Your task to perform on an android device: Search for a tv stand on Ikea Image 0: 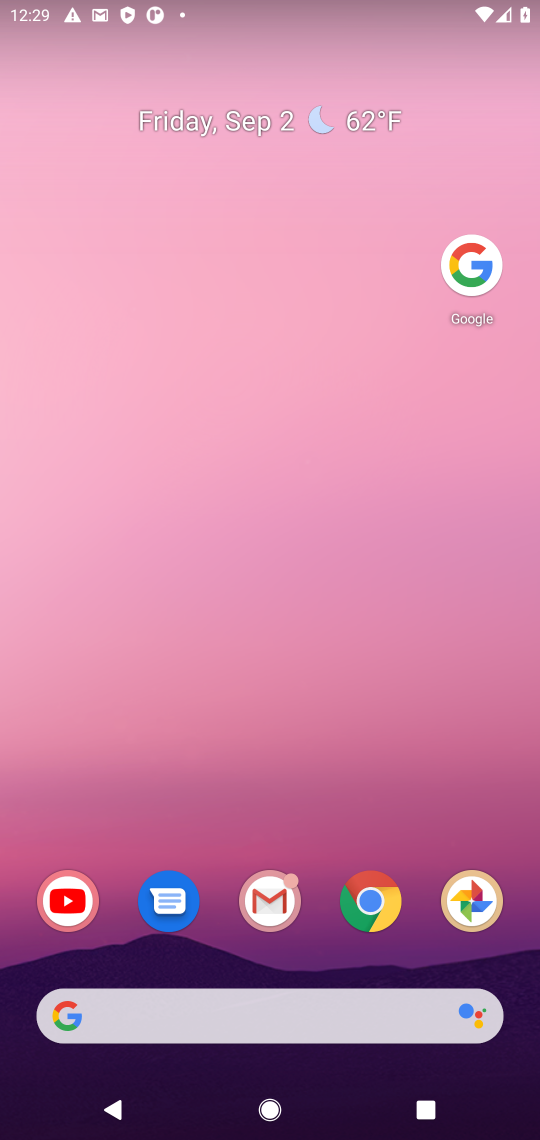
Step 0: drag from (155, 992) to (243, 197)
Your task to perform on an android device: Search for a tv stand on Ikea Image 1: 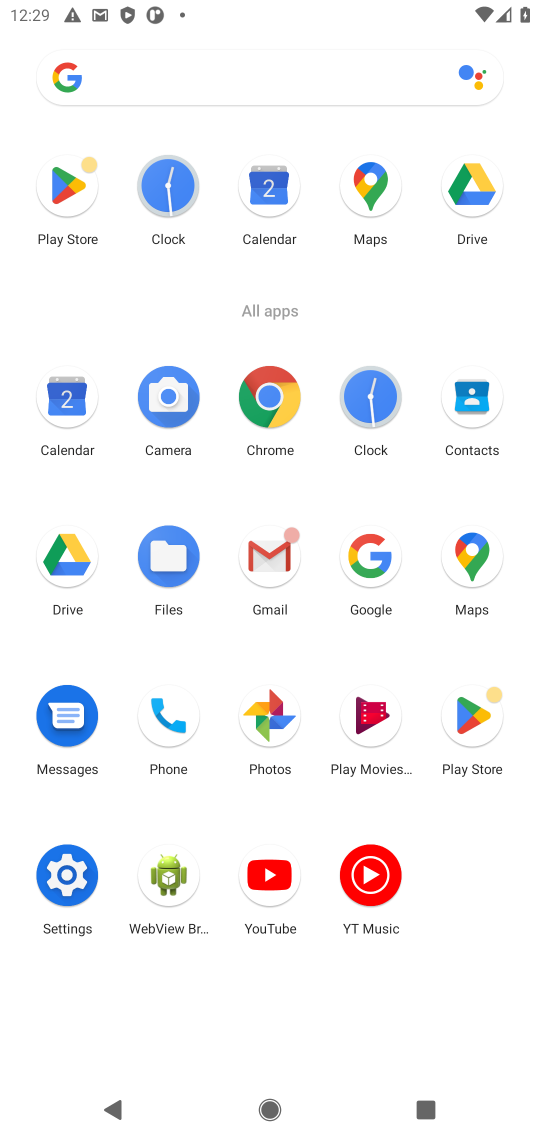
Step 1: click (364, 542)
Your task to perform on an android device: Search for a tv stand on Ikea Image 2: 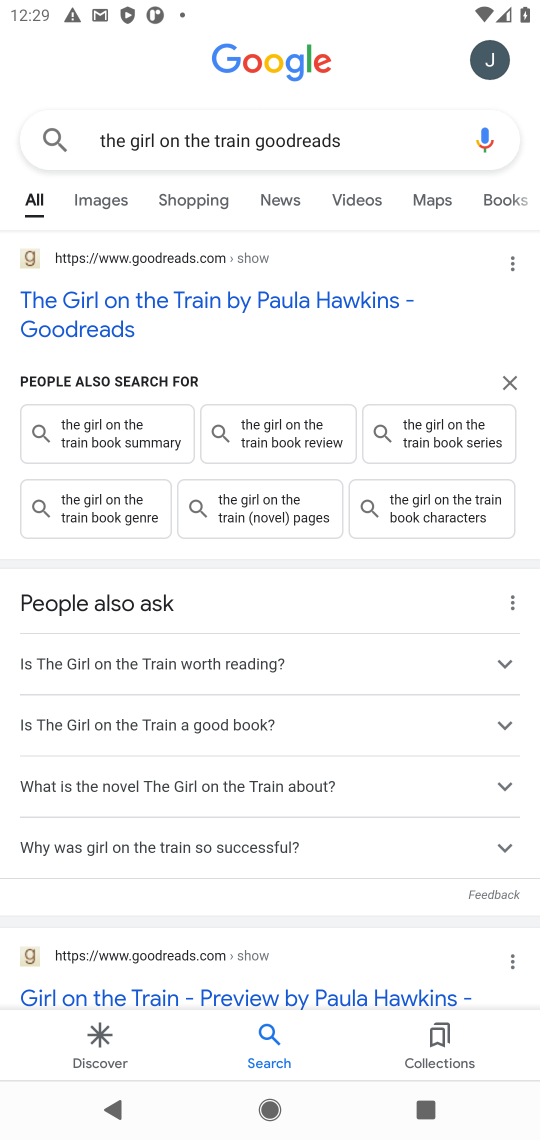
Step 2: click (350, 133)
Your task to perform on an android device: Search for a tv stand on Ikea Image 3: 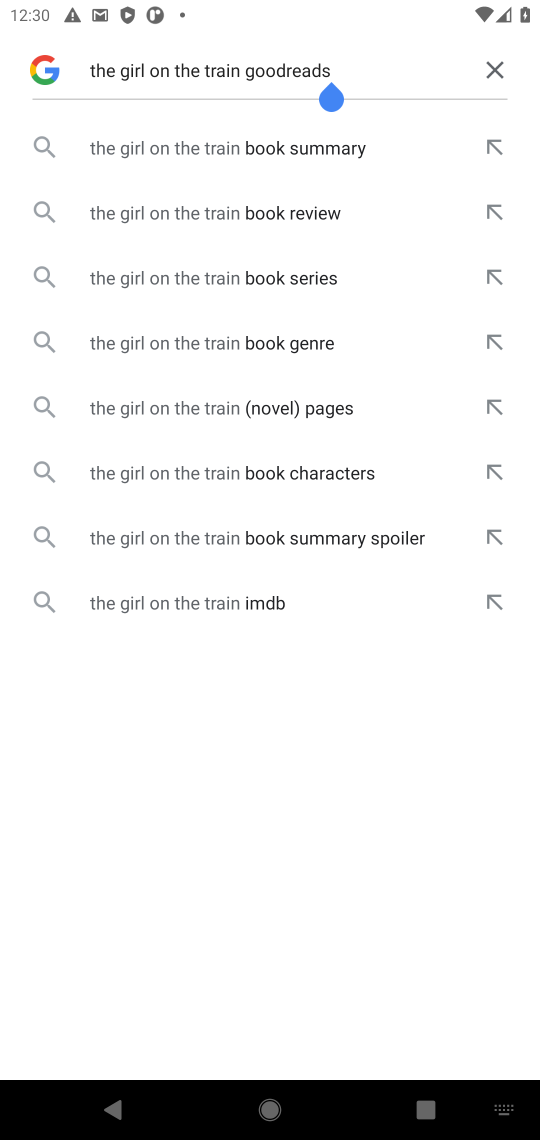
Step 3: click (496, 69)
Your task to perform on an android device: Search for a tv stand on Ikea Image 4: 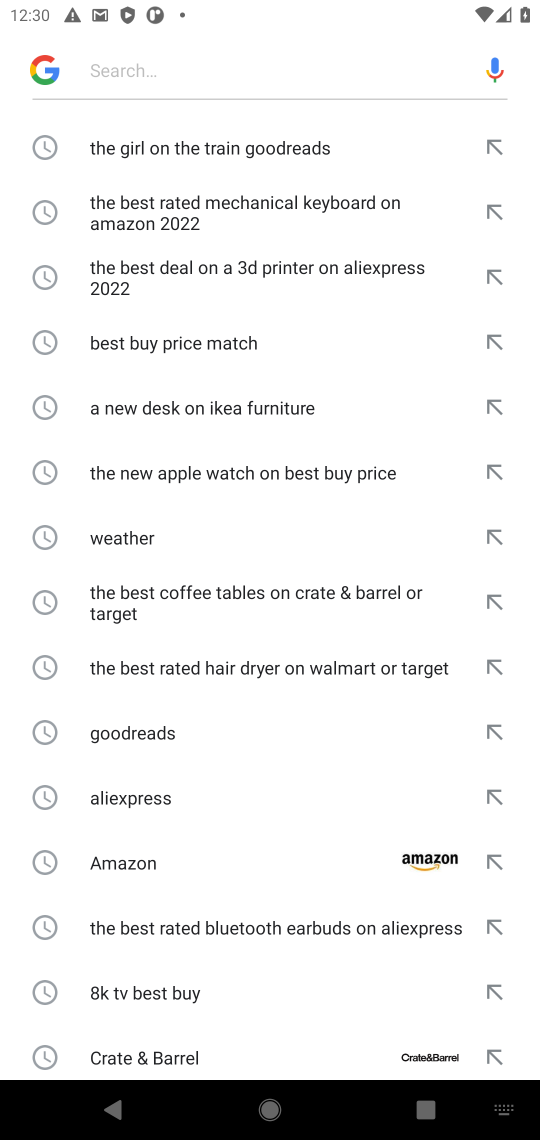
Step 4: click (249, 72)
Your task to perform on an android device: Search for a tv stand on Ikea Image 5: 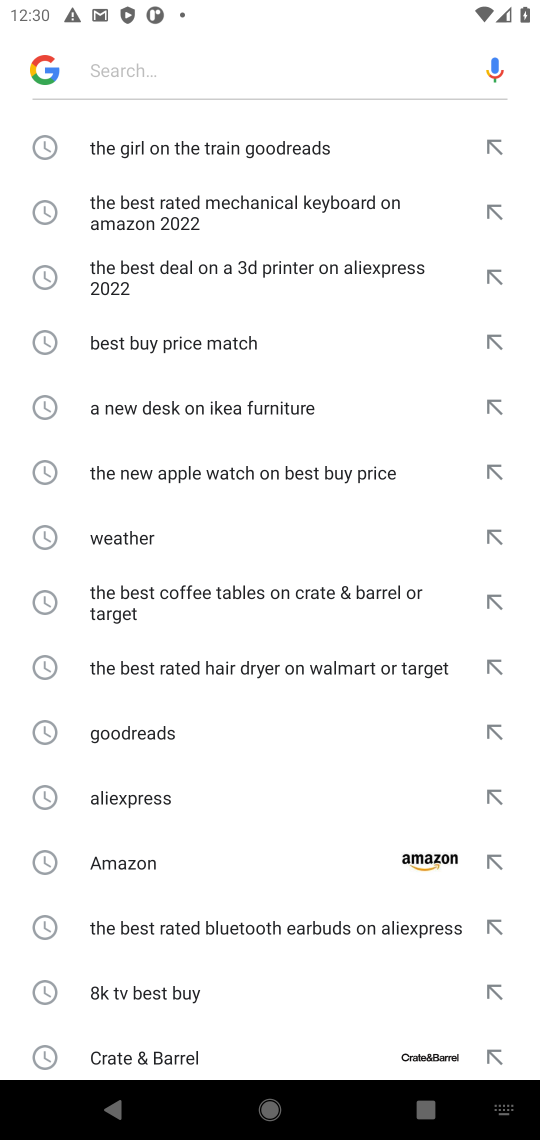
Step 5: type "tv stand on Ikea"
Your task to perform on an android device: Search for a tv stand on Ikea Image 6: 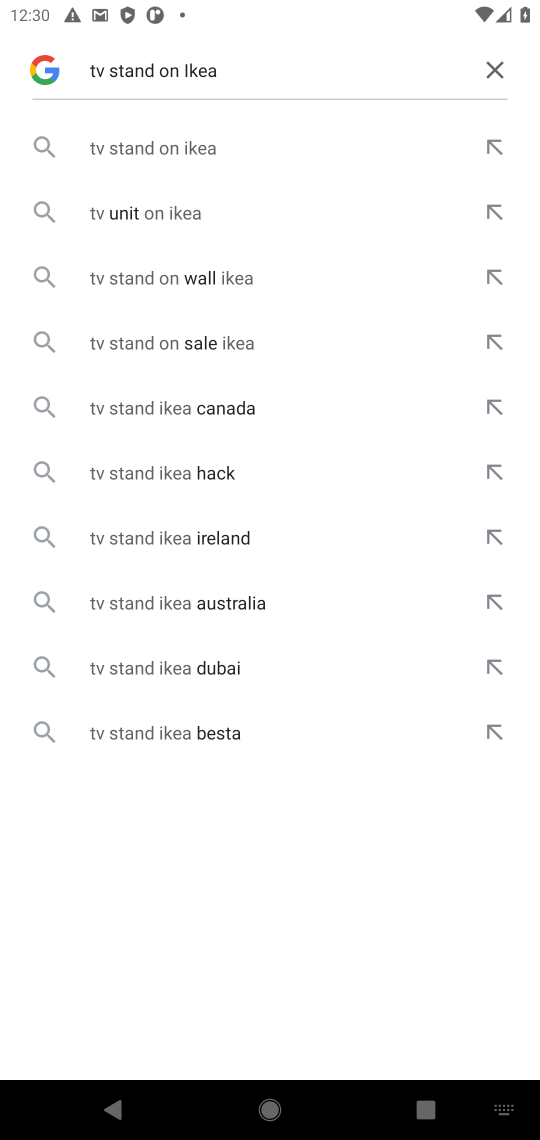
Step 6: click (159, 146)
Your task to perform on an android device: Search for a tv stand on Ikea Image 7: 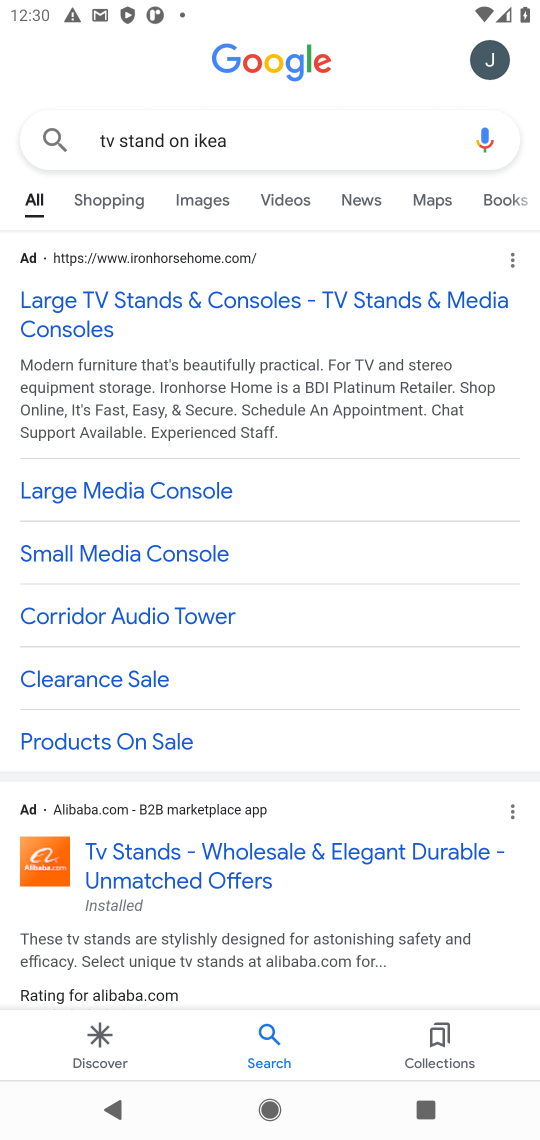
Step 7: drag from (295, 795) to (291, 329)
Your task to perform on an android device: Search for a tv stand on Ikea Image 8: 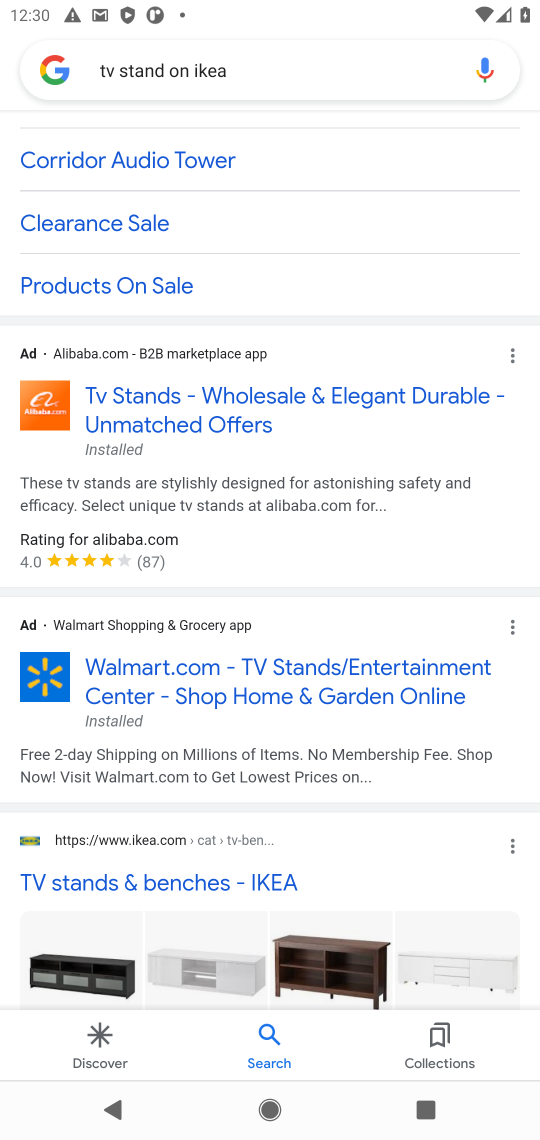
Step 8: drag from (241, 812) to (256, 499)
Your task to perform on an android device: Search for a tv stand on Ikea Image 9: 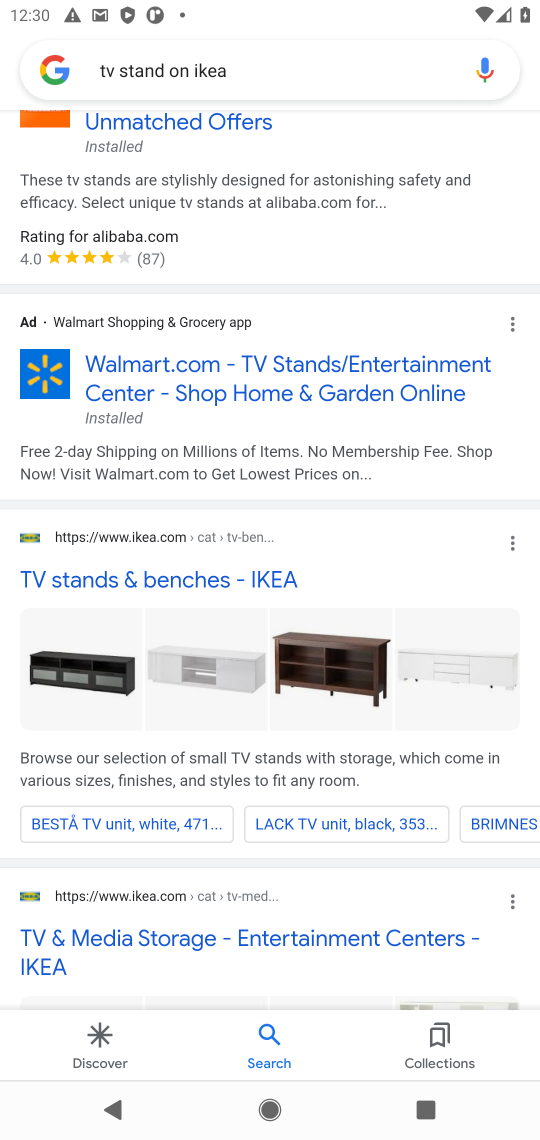
Step 9: click (178, 579)
Your task to perform on an android device: Search for a tv stand on Ikea Image 10: 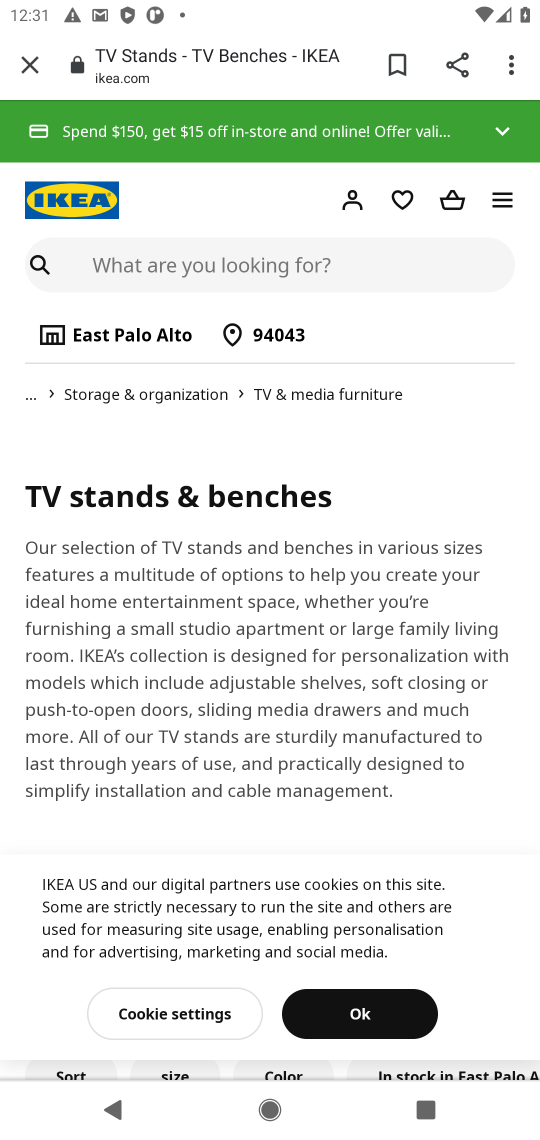
Step 10: click (258, 259)
Your task to perform on an android device: Search for a tv stand on Ikea Image 11: 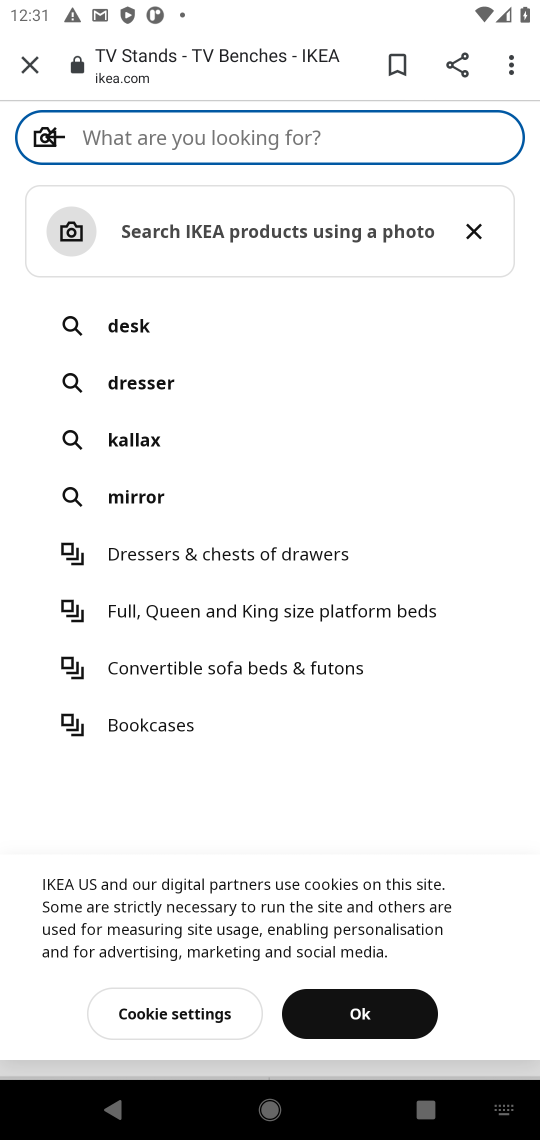
Step 11: type "stand "
Your task to perform on an android device: Search for a tv stand on Ikea Image 12: 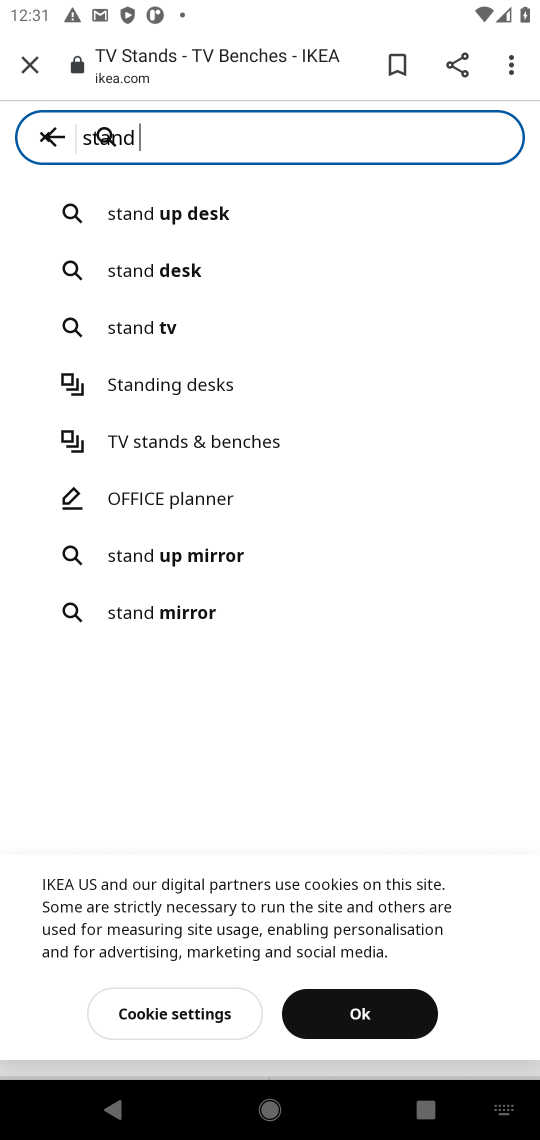
Step 12: click (157, 213)
Your task to perform on an android device: Search for a tv stand on Ikea Image 13: 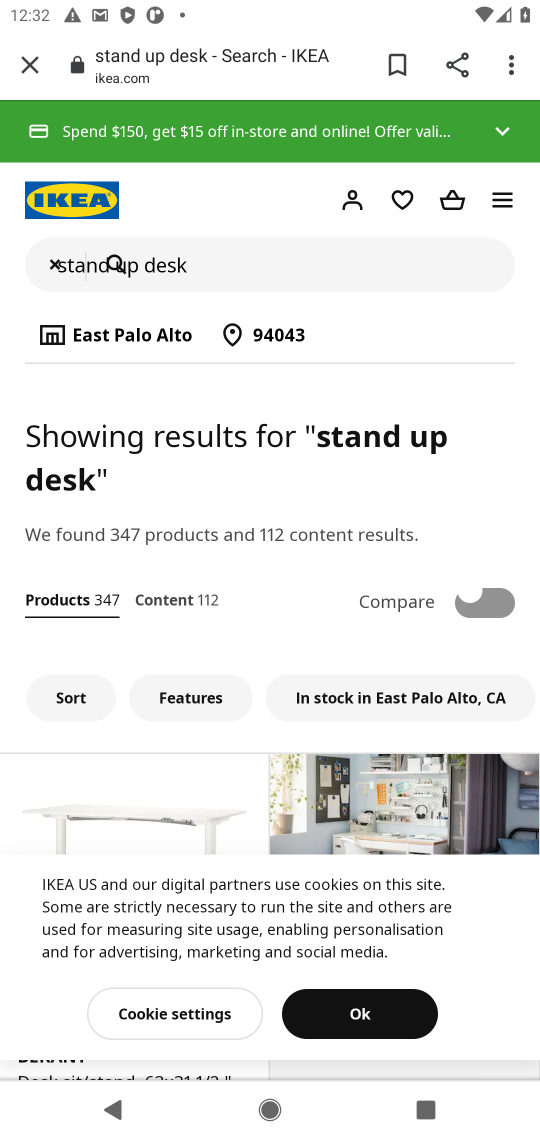
Step 13: click (349, 1026)
Your task to perform on an android device: Search for a tv stand on Ikea Image 14: 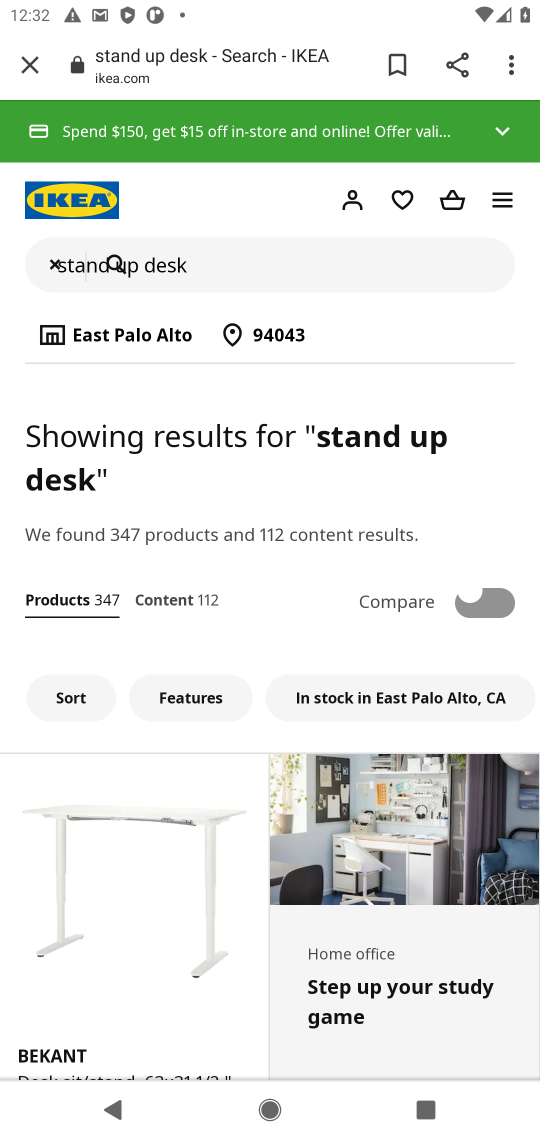
Step 14: task complete